Your task to perform on an android device: turn off notifications settings in the gmail app Image 0: 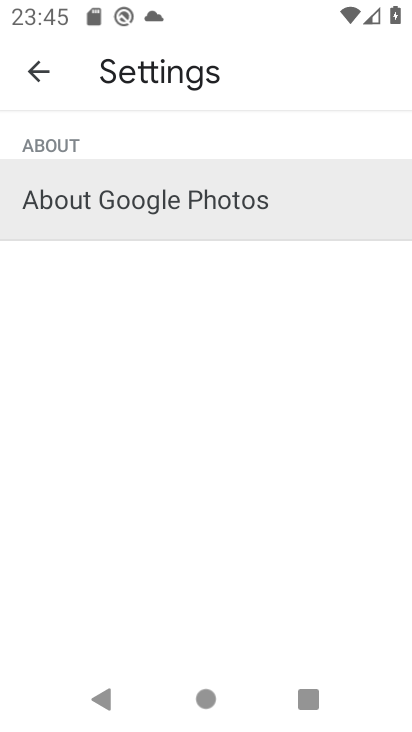
Step 0: press home button
Your task to perform on an android device: turn off notifications settings in the gmail app Image 1: 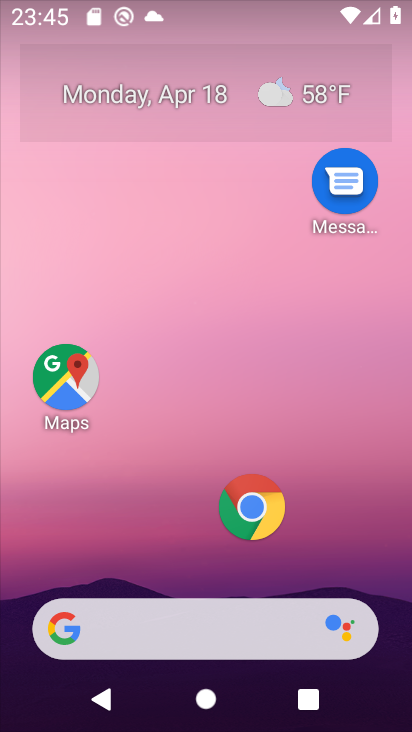
Step 1: drag from (173, 544) to (215, 33)
Your task to perform on an android device: turn off notifications settings in the gmail app Image 2: 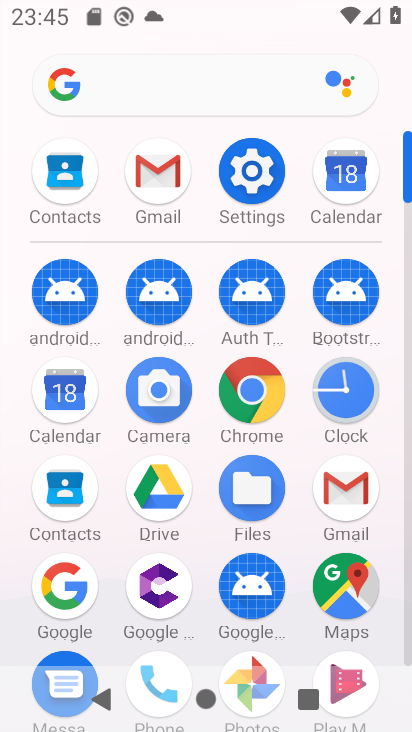
Step 2: click (342, 521)
Your task to perform on an android device: turn off notifications settings in the gmail app Image 3: 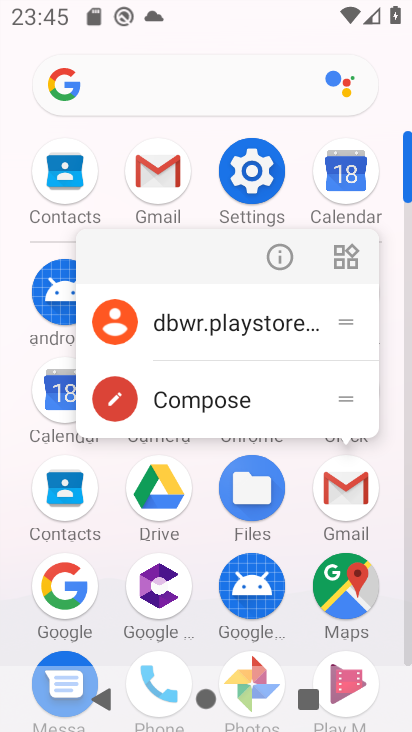
Step 3: click (343, 483)
Your task to perform on an android device: turn off notifications settings in the gmail app Image 4: 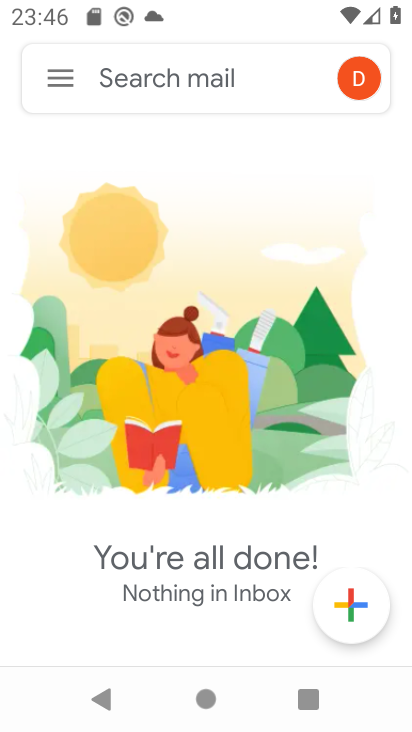
Step 4: click (51, 73)
Your task to perform on an android device: turn off notifications settings in the gmail app Image 5: 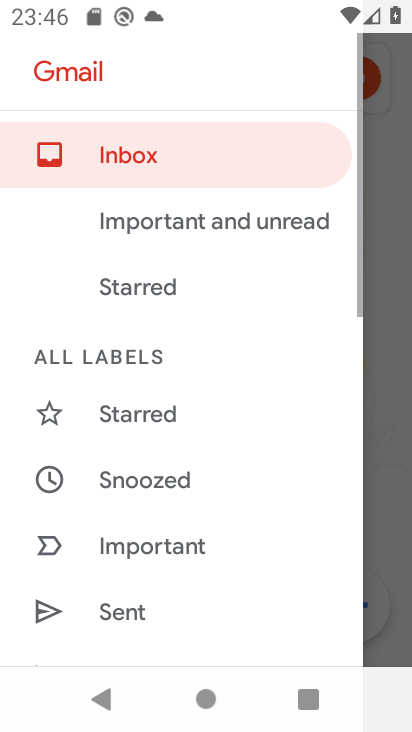
Step 5: drag from (119, 580) to (206, 4)
Your task to perform on an android device: turn off notifications settings in the gmail app Image 6: 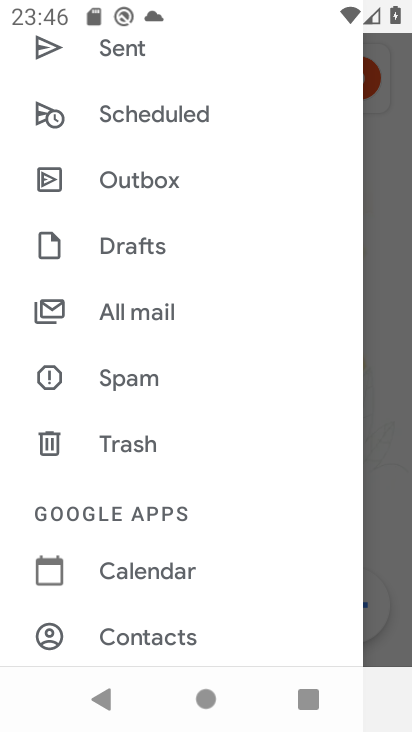
Step 6: drag from (103, 546) to (189, 8)
Your task to perform on an android device: turn off notifications settings in the gmail app Image 7: 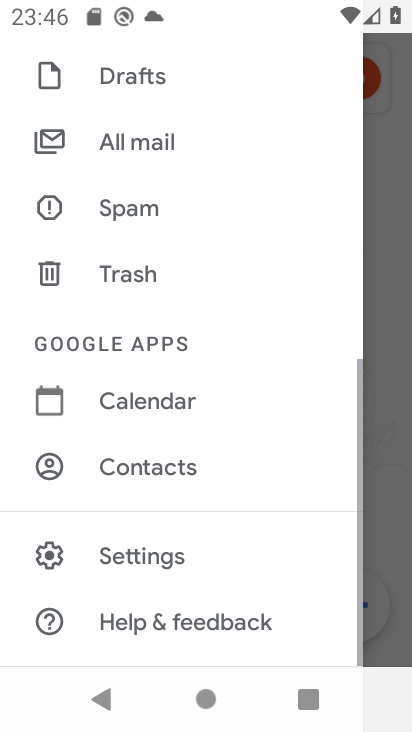
Step 7: click (153, 552)
Your task to perform on an android device: turn off notifications settings in the gmail app Image 8: 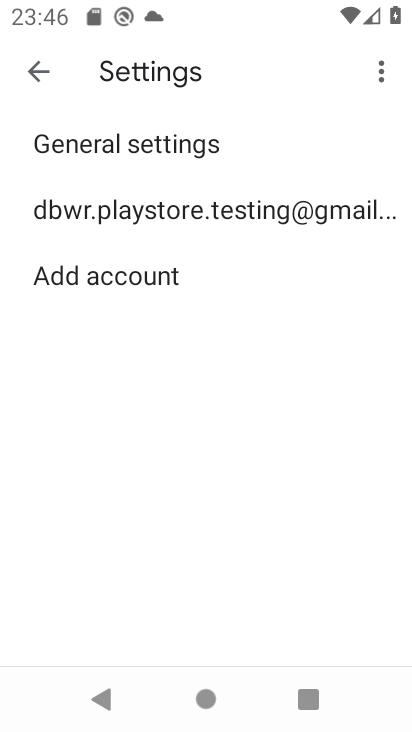
Step 8: click (140, 151)
Your task to perform on an android device: turn off notifications settings in the gmail app Image 9: 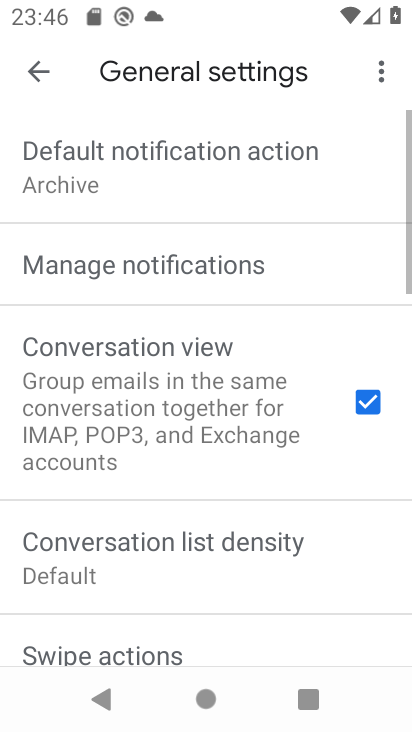
Step 9: click (144, 272)
Your task to perform on an android device: turn off notifications settings in the gmail app Image 10: 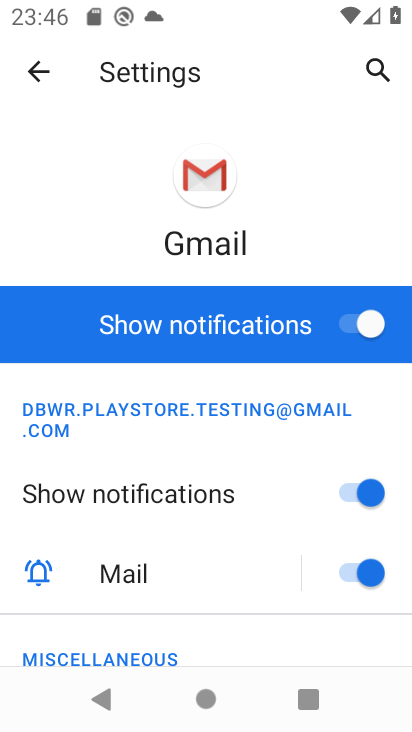
Step 10: click (344, 322)
Your task to perform on an android device: turn off notifications settings in the gmail app Image 11: 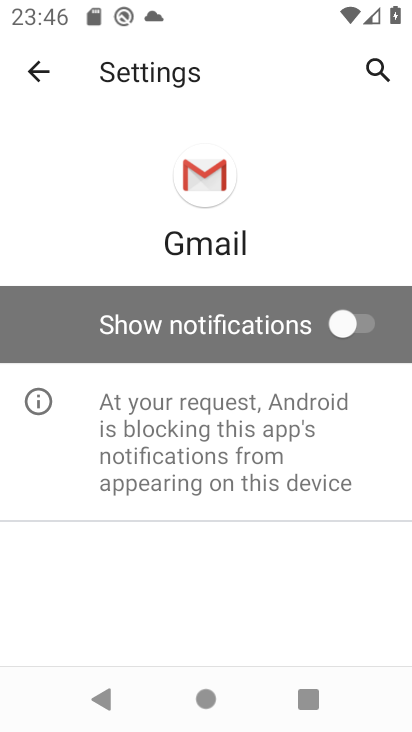
Step 11: task complete